Your task to perform on an android device: set the timer Image 0: 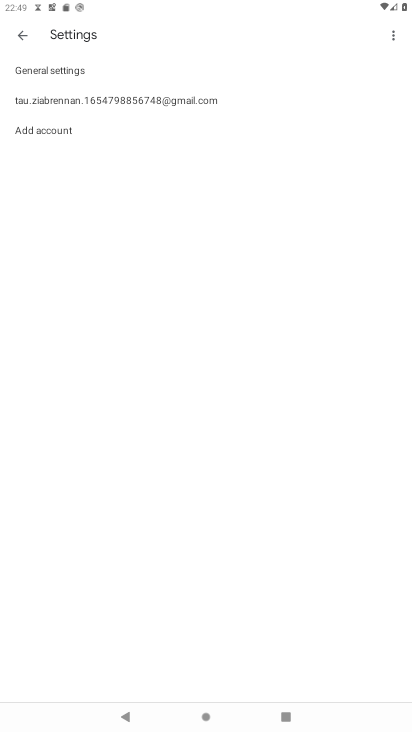
Step 0: press home button
Your task to perform on an android device: set the timer Image 1: 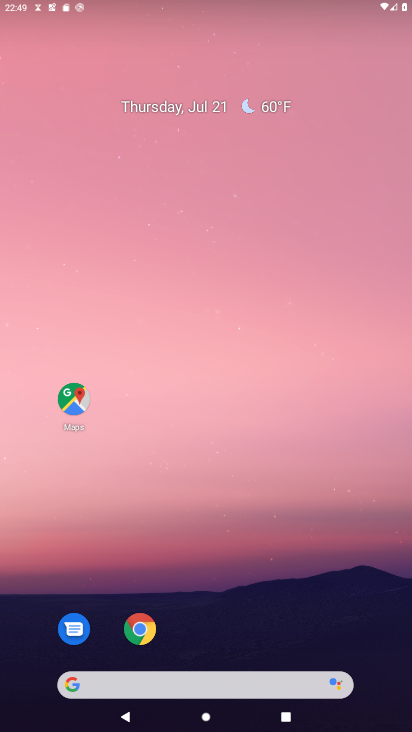
Step 1: click (210, 259)
Your task to perform on an android device: set the timer Image 2: 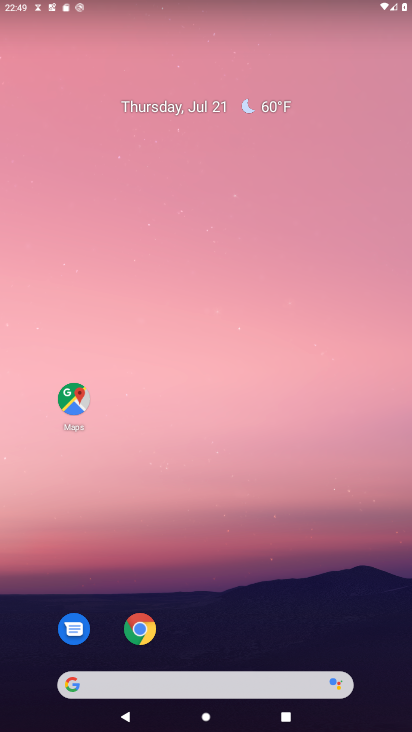
Step 2: drag from (186, 672) to (171, 313)
Your task to perform on an android device: set the timer Image 3: 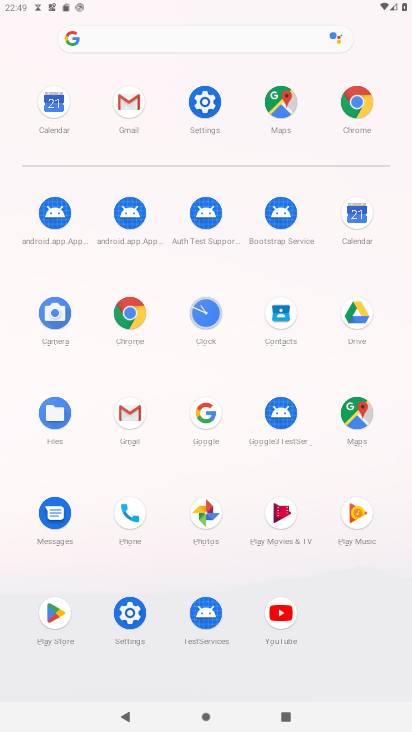
Step 3: click (197, 300)
Your task to perform on an android device: set the timer Image 4: 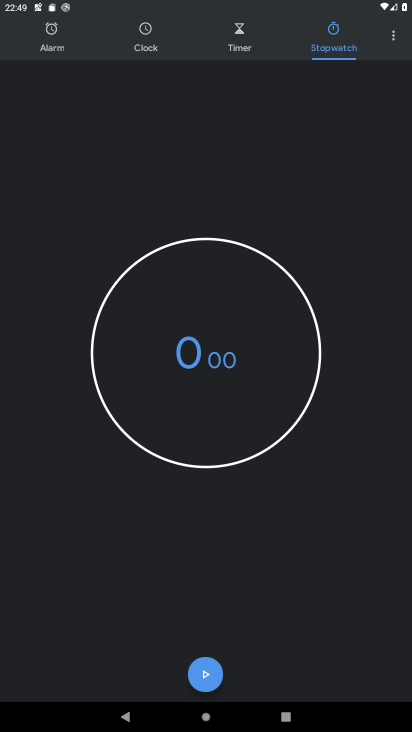
Step 4: click (248, 46)
Your task to perform on an android device: set the timer Image 5: 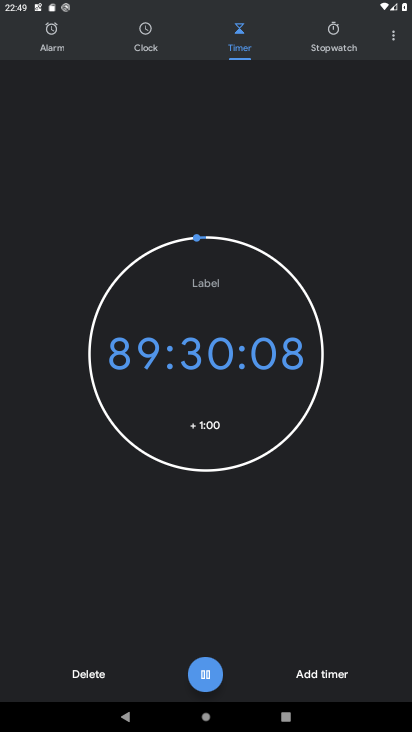
Step 5: task complete